Your task to perform on an android device: turn on improve location accuracy Image 0: 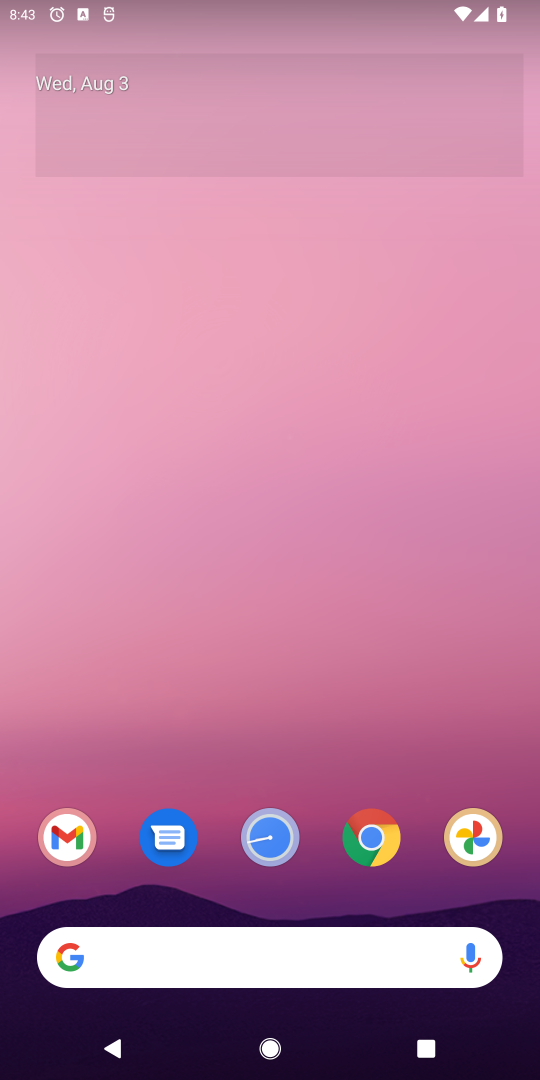
Step 0: press home button
Your task to perform on an android device: turn on improve location accuracy Image 1: 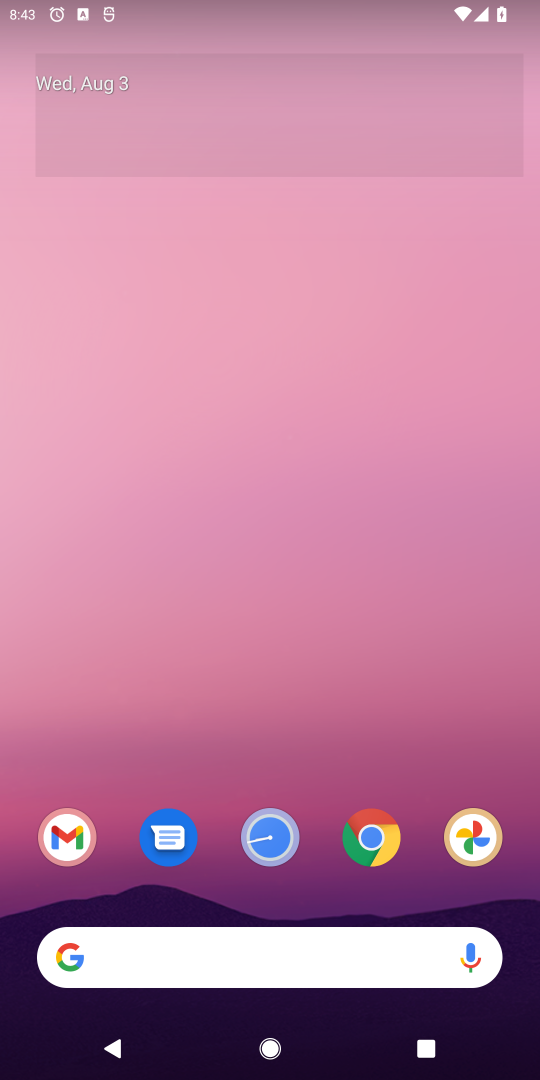
Step 1: drag from (299, 877) to (505, 75)
Your task to perform on an android device: turn on improve location accuracy Image 2: 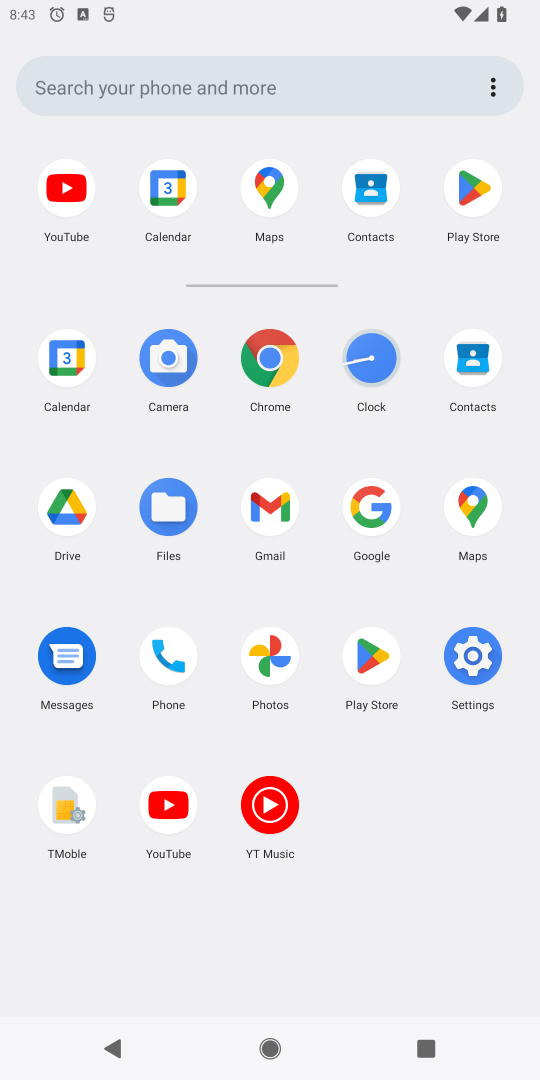
Step 2: click (473, 674)
Your task to perform on an android device: turn on improve location accuracy Image 3: 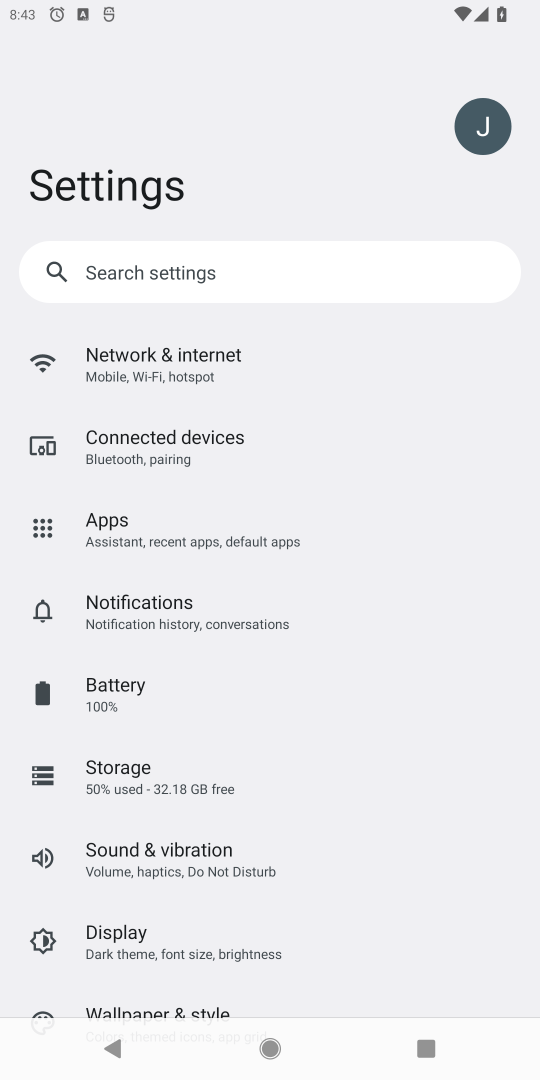
Step 3: drag from (395, 943) to (392, 539)
Your task to perform on an android device: turn on improve location accuracy Image 4: 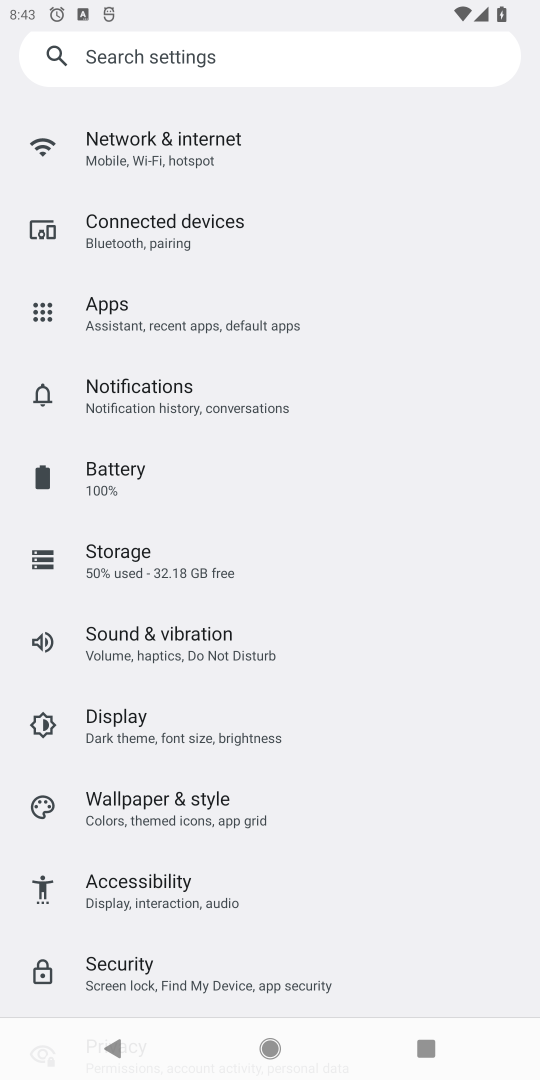
Step 4: drag from (412, 906) to (296, 7)
Your task to perform on an android device: turn on improve location accuracy Image 5: 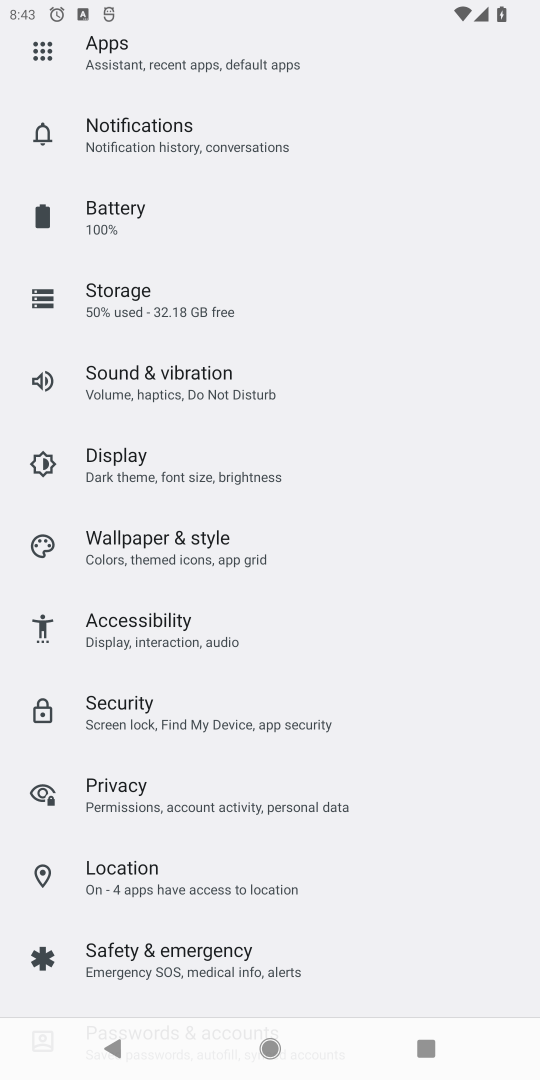
Step 5: click (126, 878)
Your task to perform on an android device: turn on improve location accuracy Image 6: 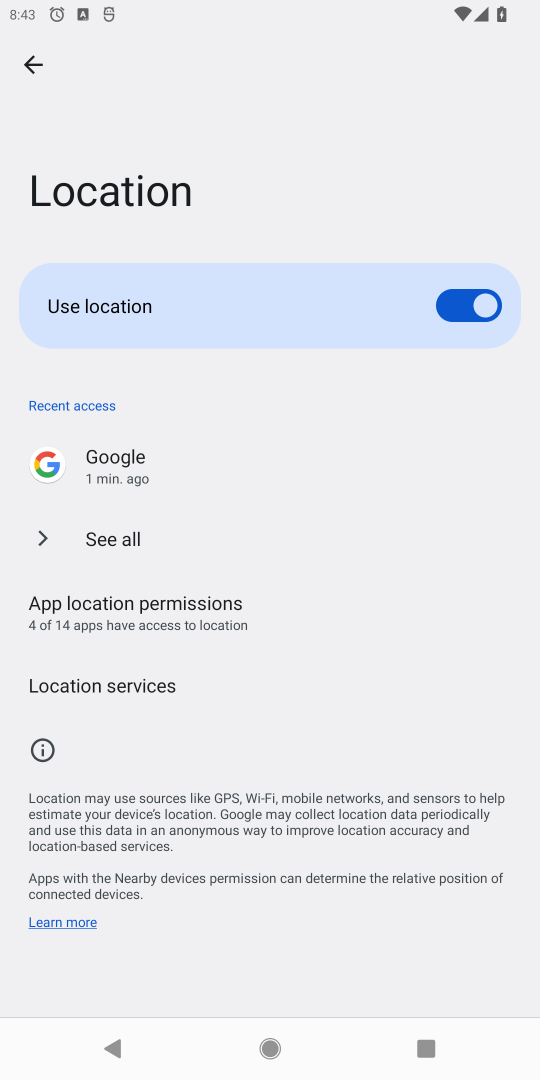
Step 6: click (65, 681)
Your task to perform on an android device: turn on improve location accuracy Image 7: 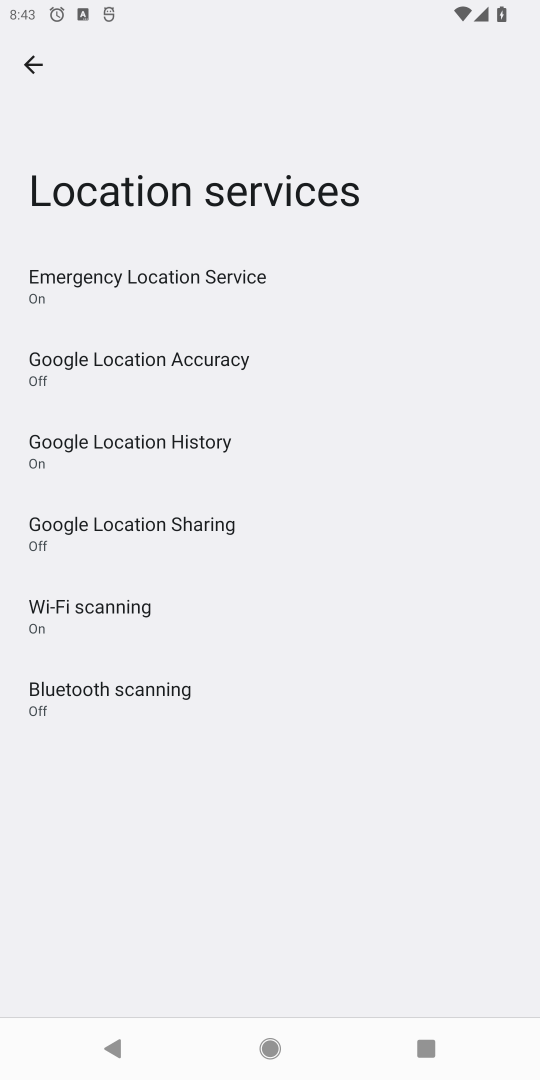
Step 7: click (175, 367)
Your task to perform on an android device: turn on improve location accuracy Image 8: 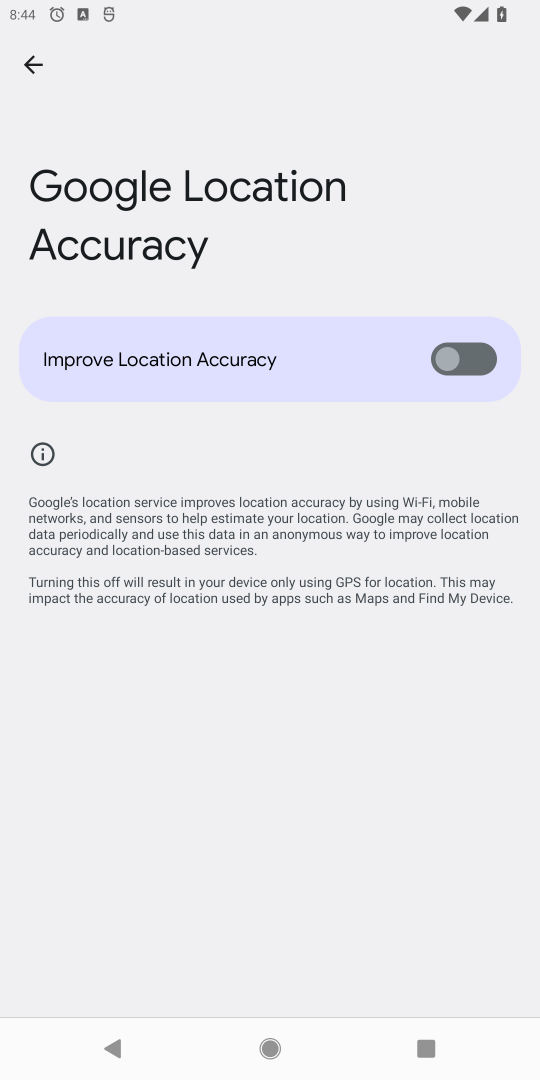
Step 8: click (452, 353)
Your task to perform on an android device: turn on improve location accuracy Image 9: 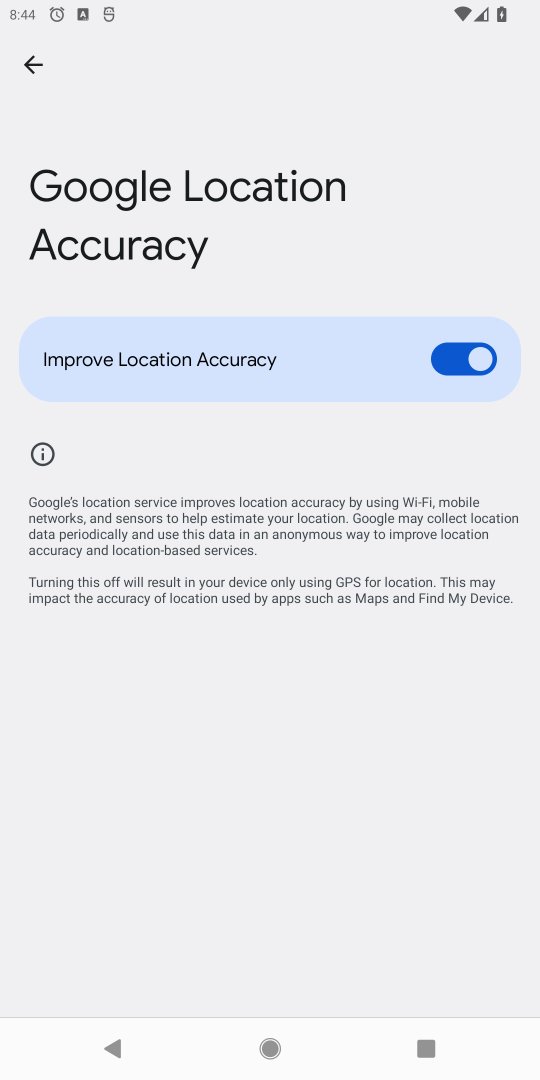
Step 9: task complete